Your task to perform on an android device: check android version Image 0: 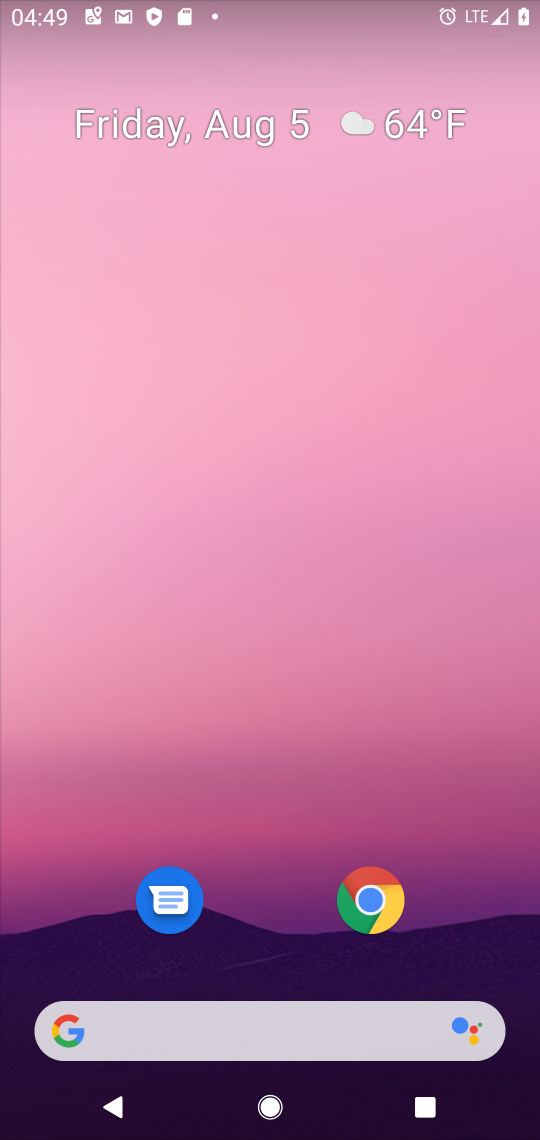
Step 0: drag from (250, 848) to (183, 35)
Your task to perform on an android device: check android version Image 1: 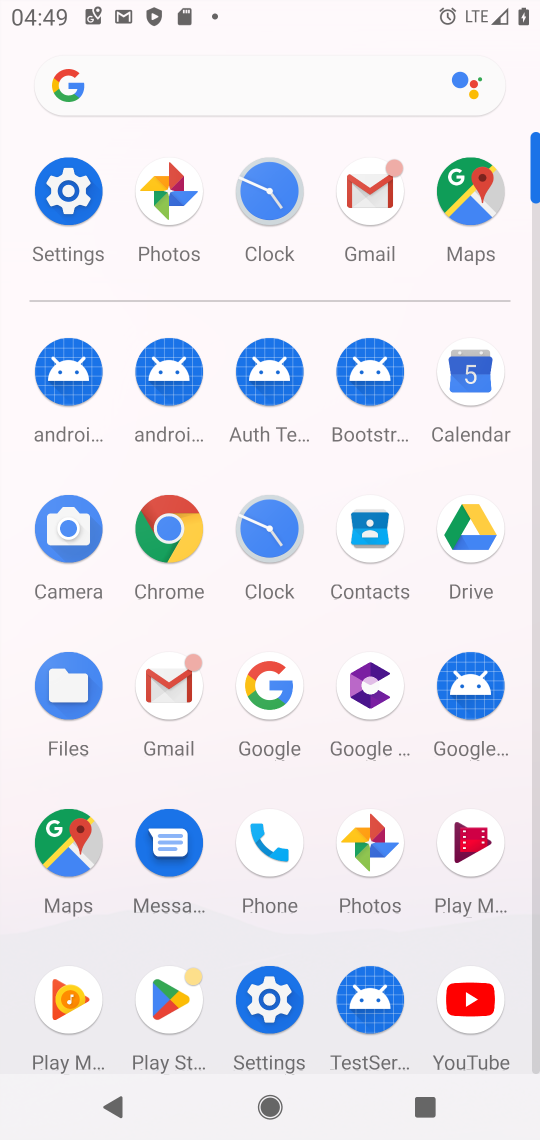
Step 1: click (59, 181)
Your task to perform on an android device: check android version Image 2: 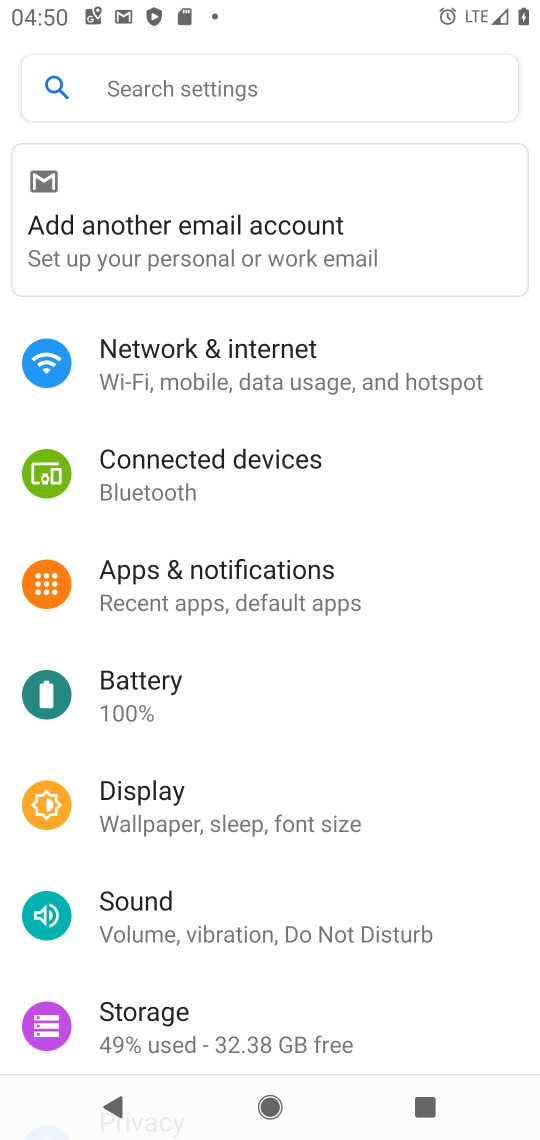
Step 2: drag from (311, 931) to (358, 215)
Your task to perform on an android device: check android version Image 3: 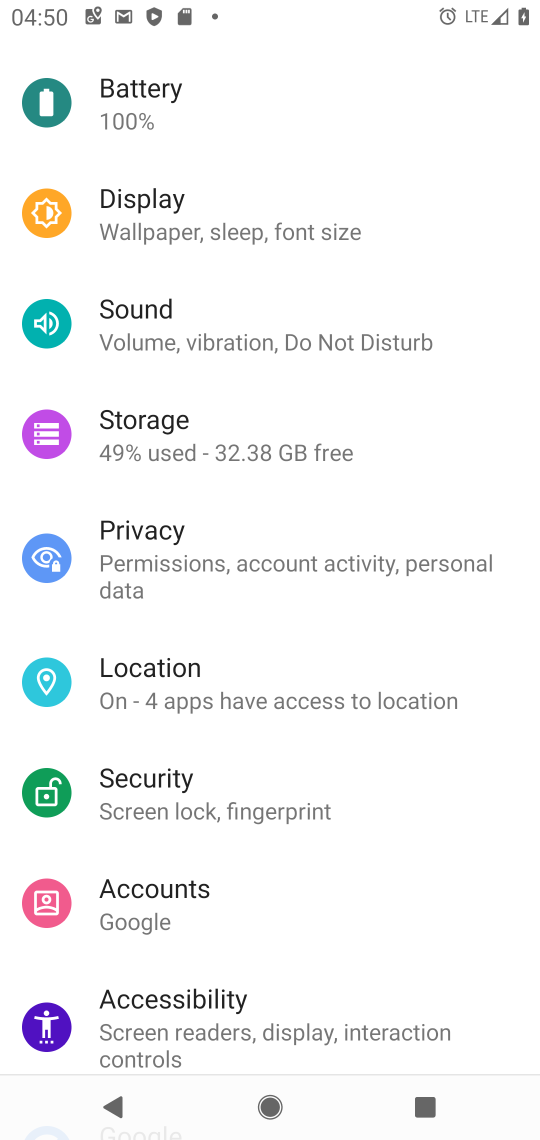
Step 3: drag from (265, 1005) to (232, 19)
Your task to perform on an android device: check android version Image 4: 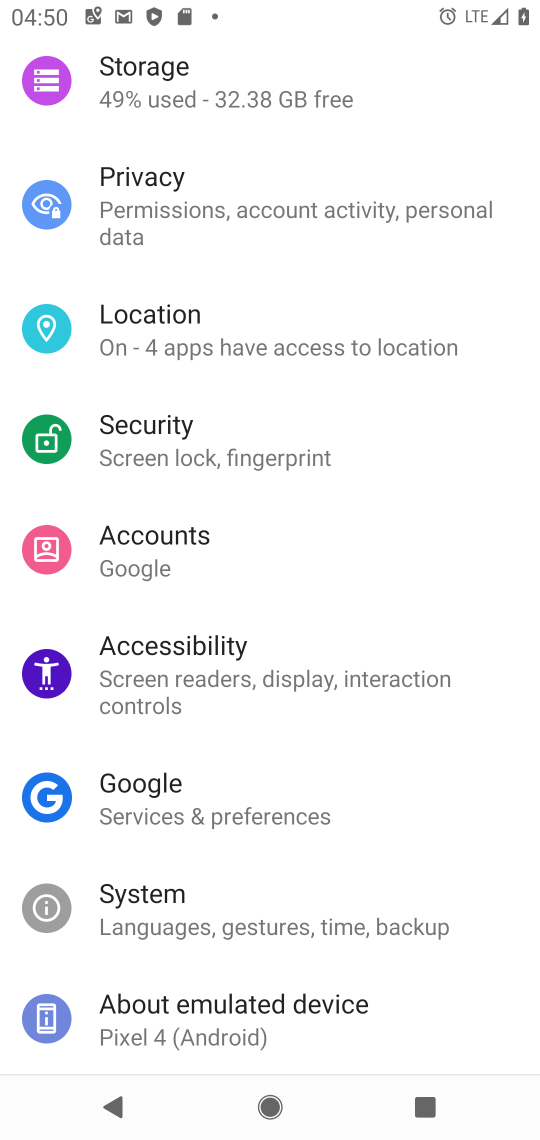
Step 4: click (133, 1027)
Your task to perform on an android device: check android version Image 5: 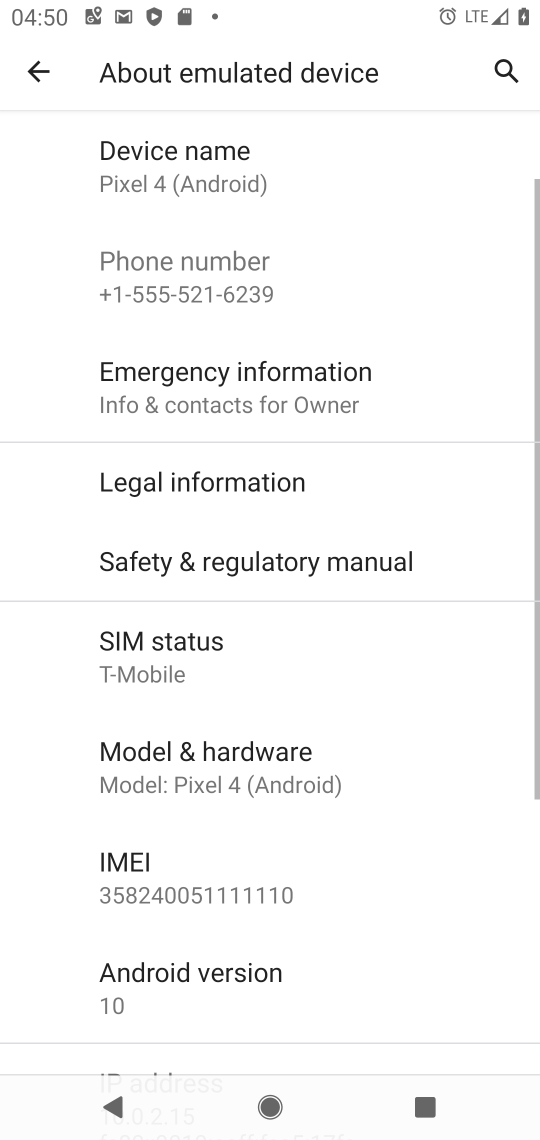
Step 5: click (253, 960)
Your task to perform on an android device: check android version Image 6: 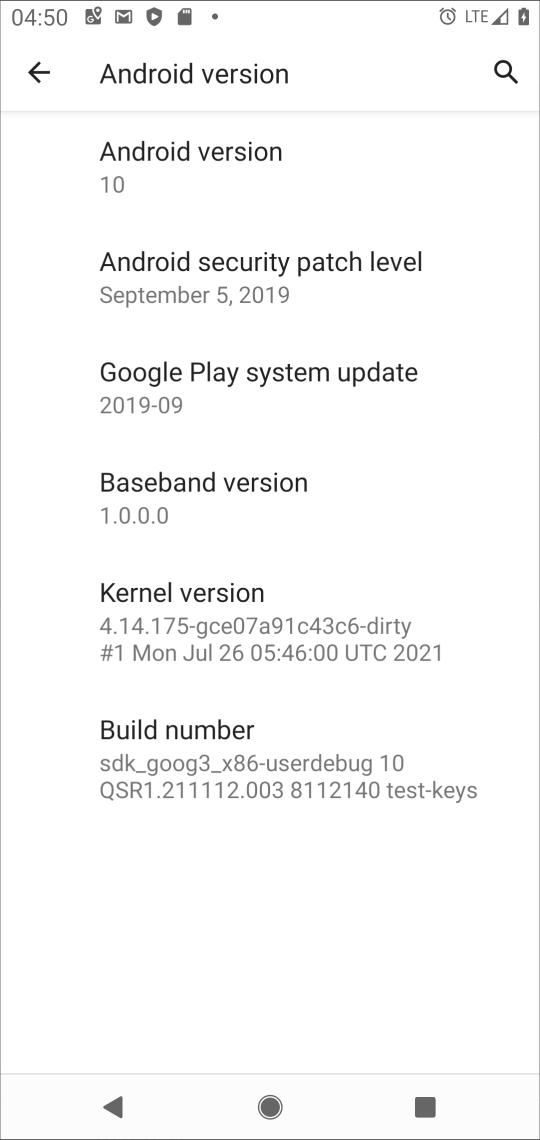
Step 6: task complete